Your task to perform on an android device: open chrome privacy settings Image 0: 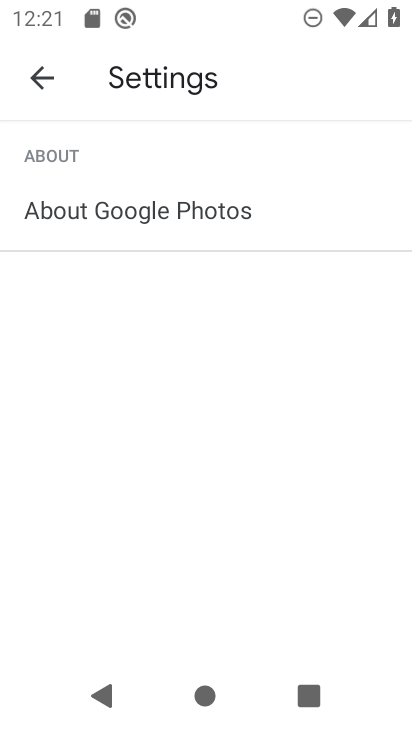
Step 0: press home button
Your task to perform on an android device: open chrome privacy settings Image 1: 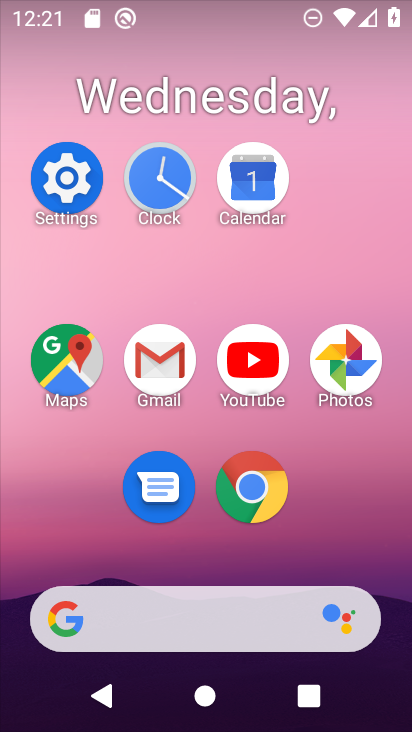
Step 1: click (257, 510)
Your task to perform on an android device: open chrome privacy settings Image 2: 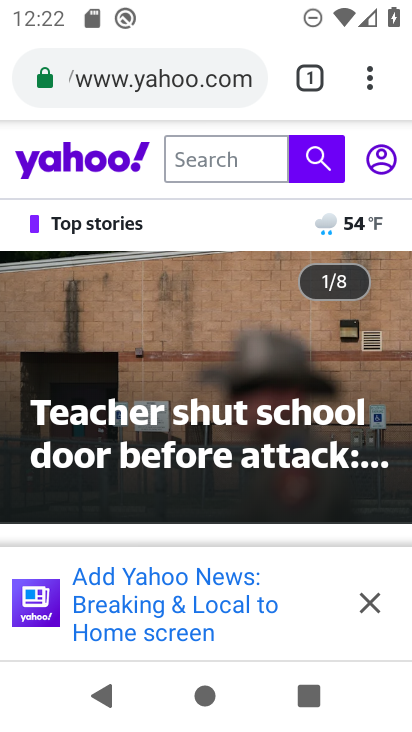
Step 2: click (376, 68)
Your task to perform on an android device: open chrome privacy settings Image 3: 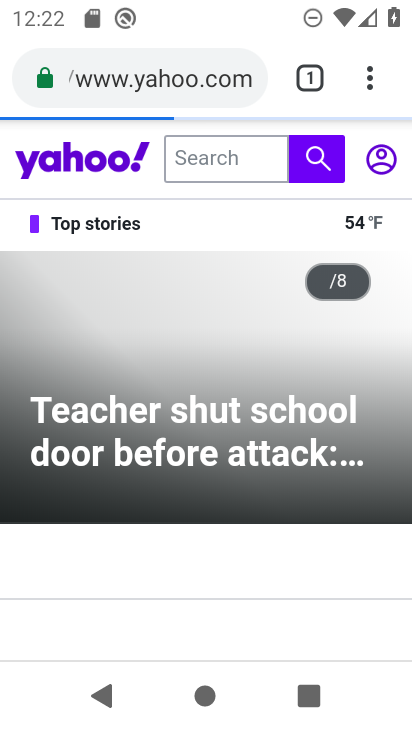
Step 3: click (374, 78)
Your task to perform on an android device: open chrome privacy settings Image 4: 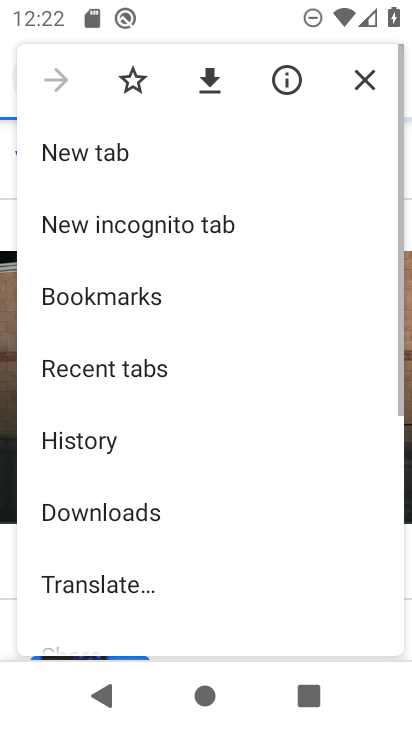
Step 4: drag from (228, 513) to (185, 94)
Your task to perform on an android device: open chrome privacy settings Image 5: 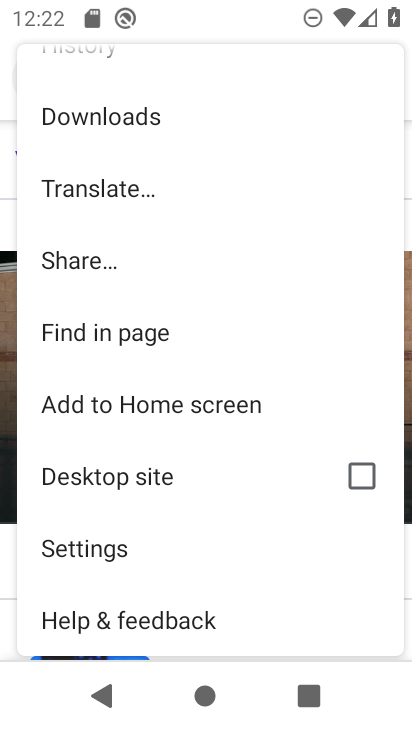
Step 5: click (169, 551)
Your task to perform on an android device: open chrome privacy settings Image 6: 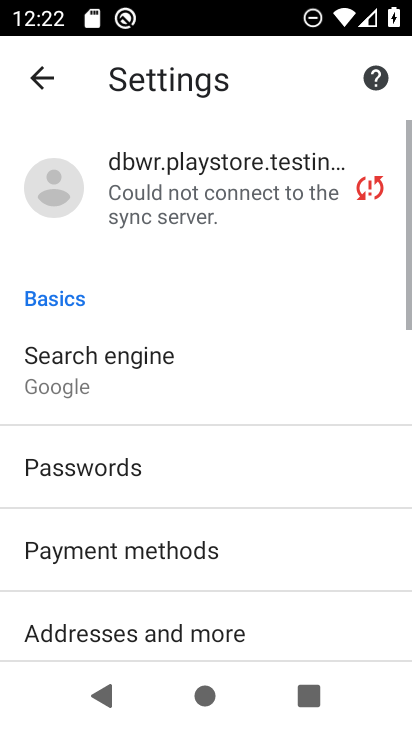
Step 6: drag from (169, 552) to (179, 96)
Your task to perform on an android device: open chrome privacy settings Image 7: 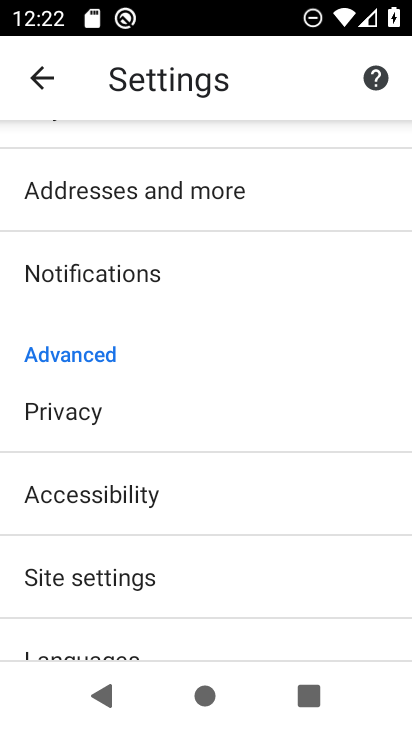
Step 7: click (166, 404)
Your task to perform on an android device: open chrome privacy settings Image 8: 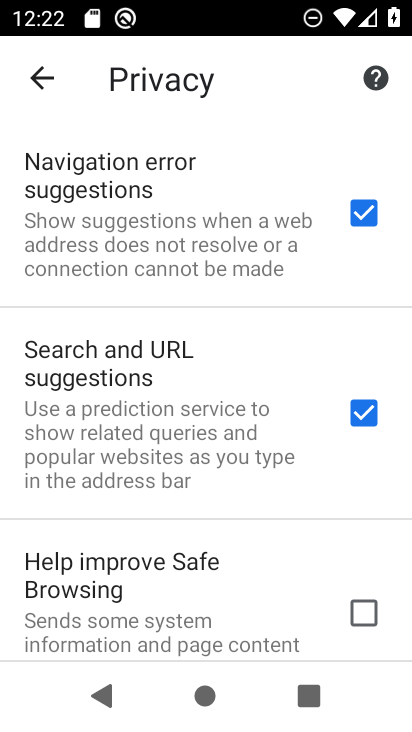
Step 8: task complete